Your task to perform on an android device: Go to Google Image 0: 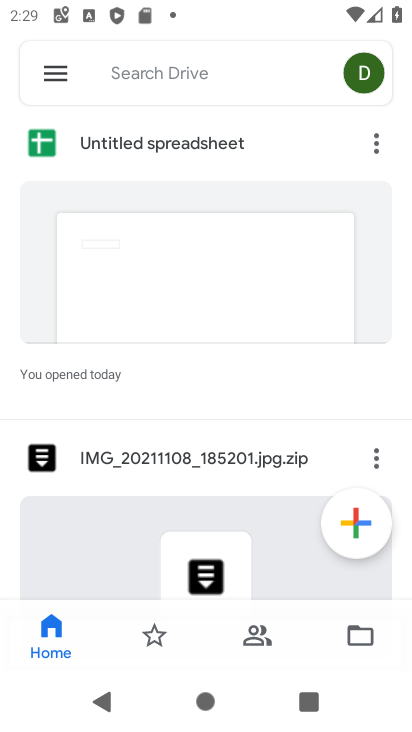
Step 0: press home button
Your task to perform on an android device: Go to Google Image 1: 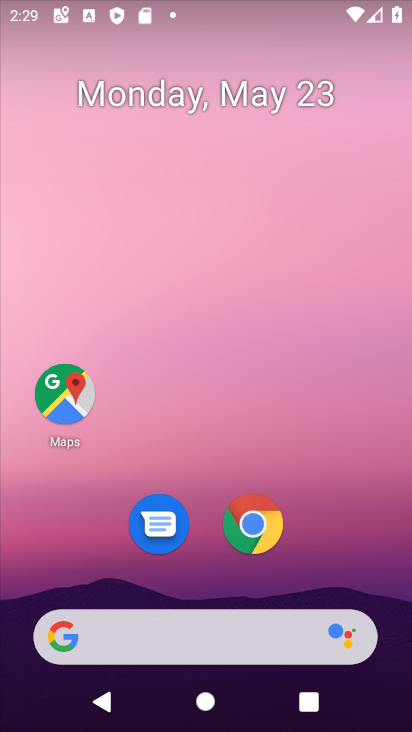
Step 1: click (173, 636)
Your task to perform on an android device: Go to Google Image 2: 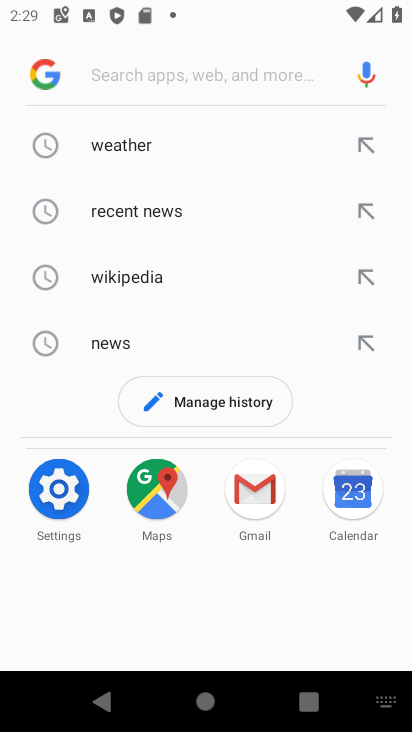
Step 2: click (42, 78)
Your task to perform on an android device: Go to Google Image 3: 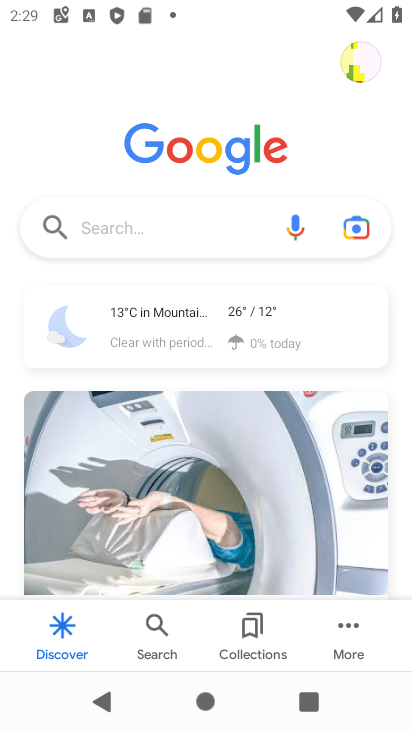
Step 3: task complete